Your task to perform on an android device: Open the map Image 0: 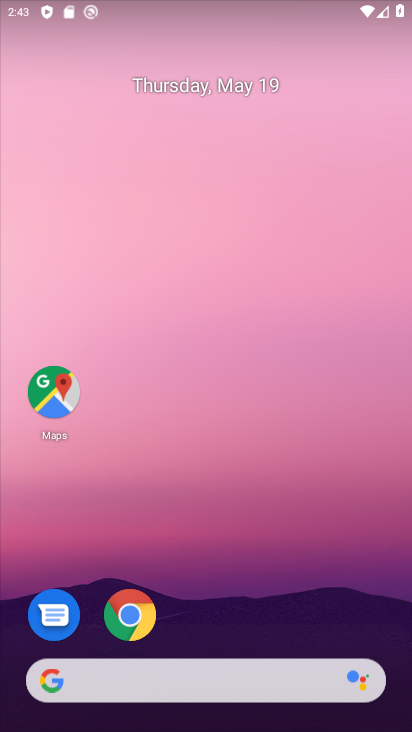
Step 0: drag from (217, 626) to (248, 168)
Your task to perform on an android device: Open the map Image 1: 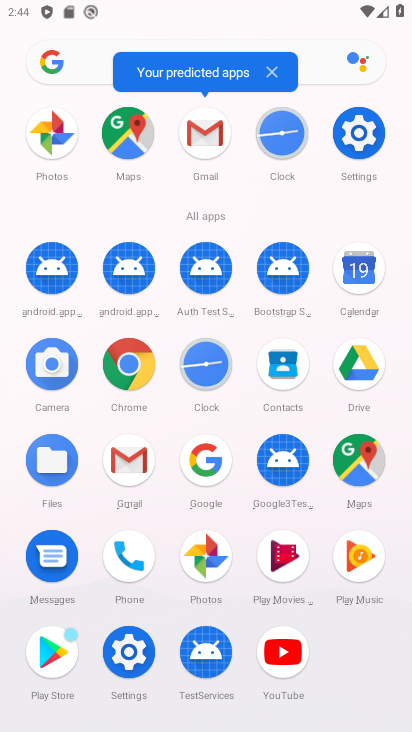
Step 1: click (118, 132)
Your task to perform on an android device: Open the map Image 2: 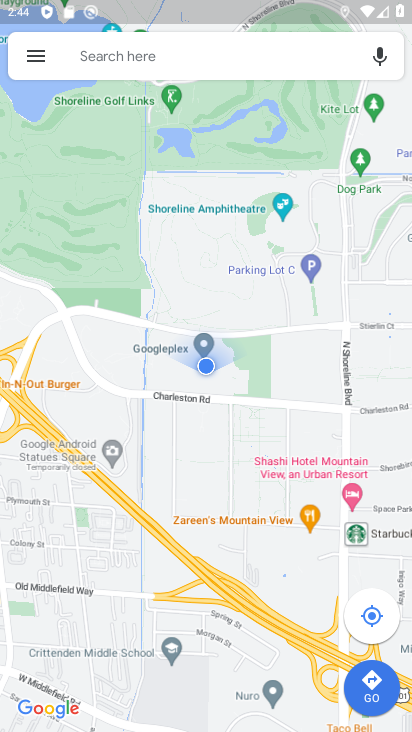
Step 2: task complete